Your task to perform on an android device: Open location settings Image 0: 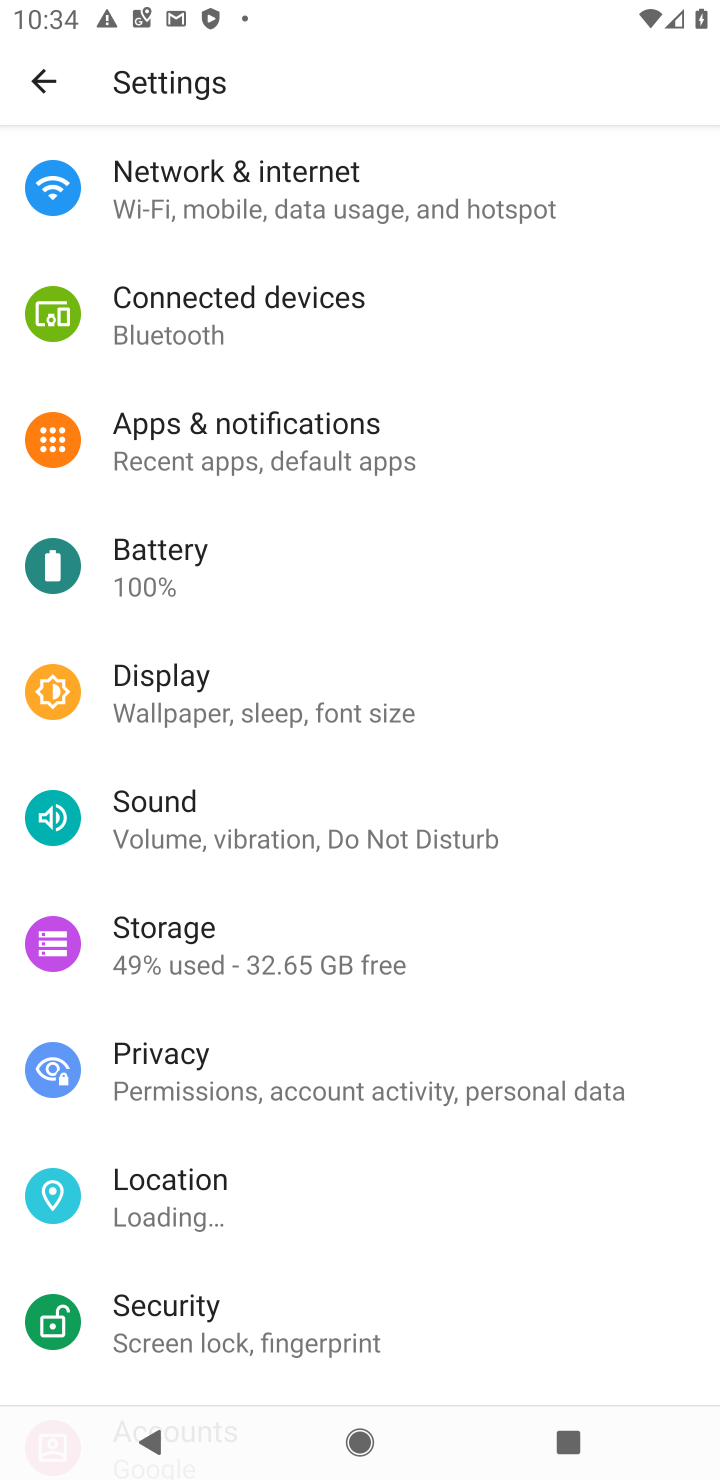
Step 0: click (240, 1169)
Your task to perform on an android device: Open location settings Image 1: 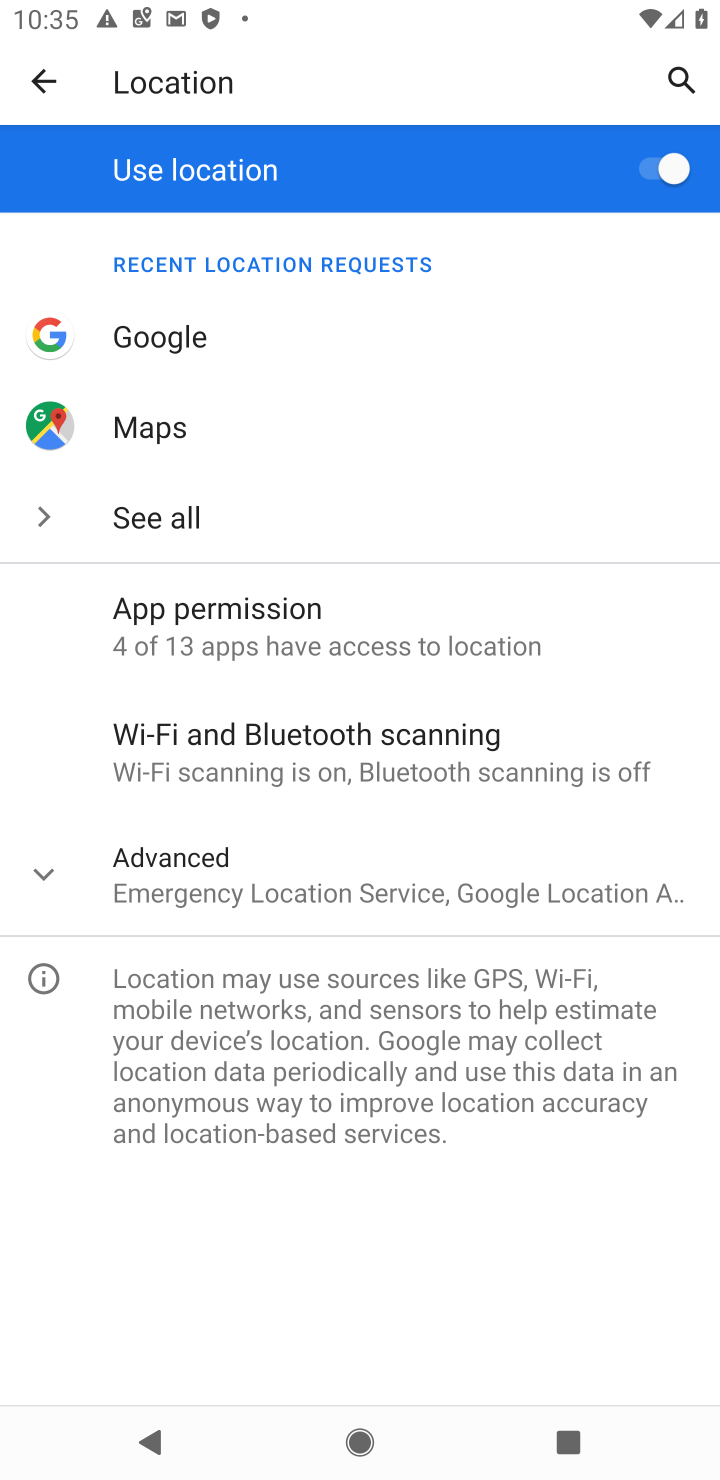
Step 1: click (289, 880)
Your task to perform on an android device: Open location settings Image 2: 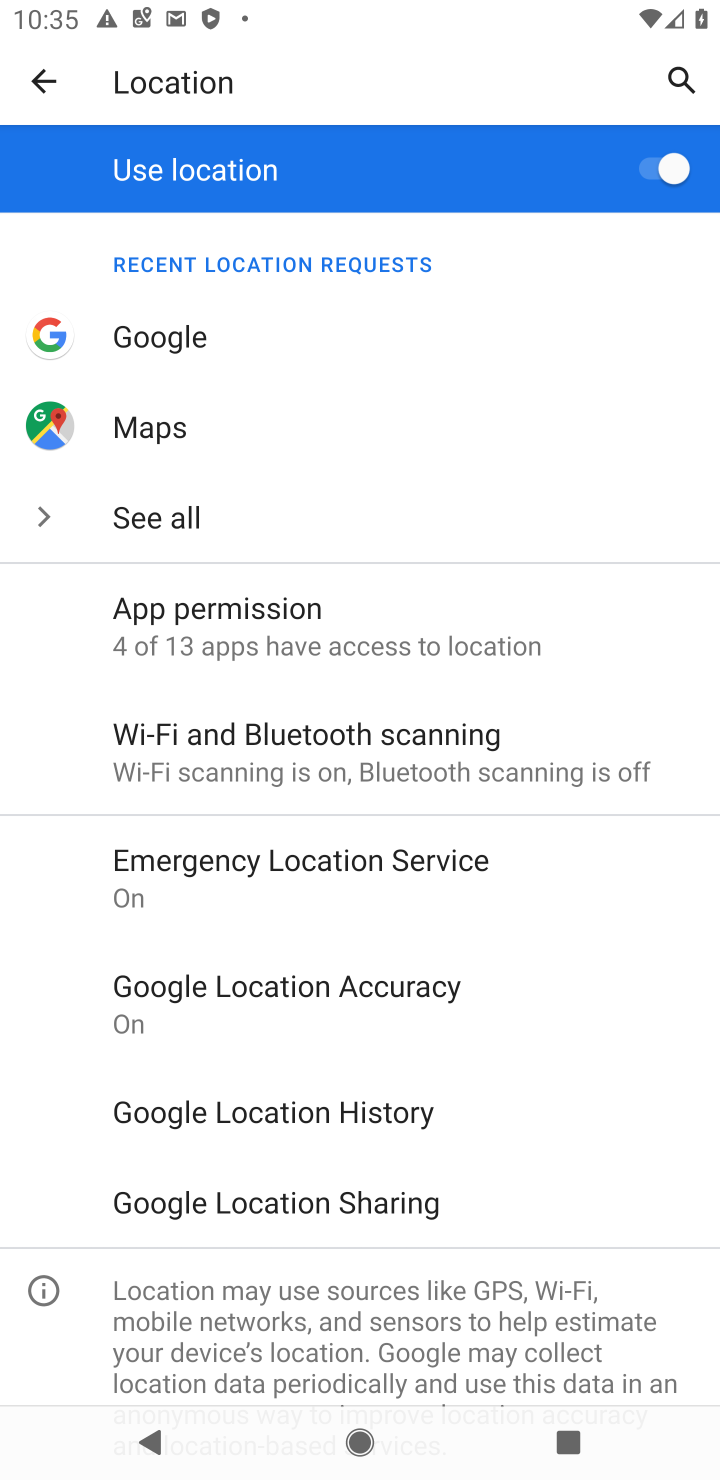
Step 2: task complete